Your task to perform on an android device: read, delete, or share a saved page in the chrome app Image 0: 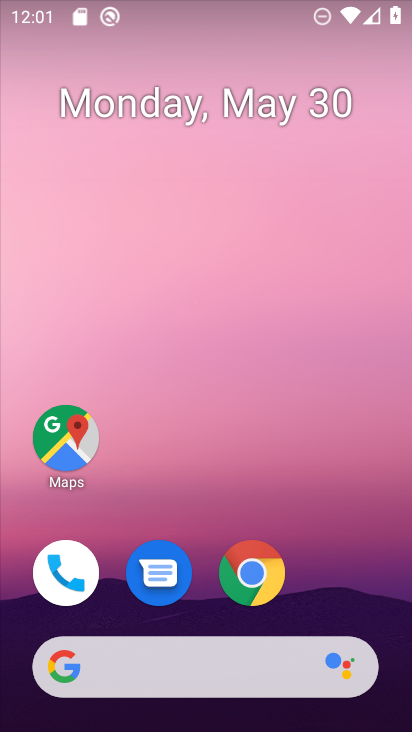
Step 0: drag from (372, 609) to (332, 114)
Your task to perform on an android device: read, delete, or share a saved page in the chrome app Image 1: 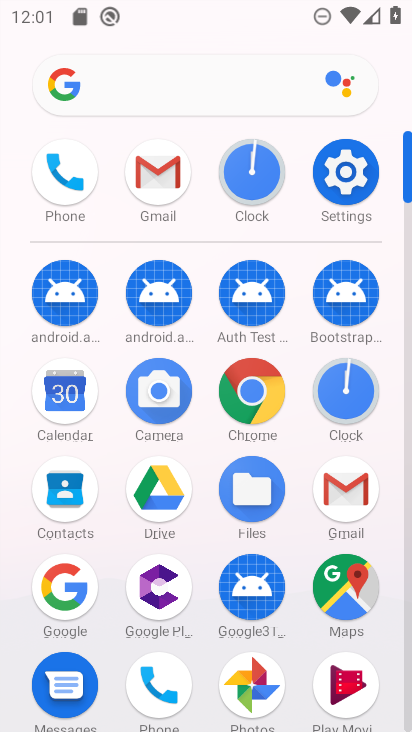
Step 1: click (233, 393)
Your task to perform on an android device: read, delete, or share a saved page in the chrome app Image 2: 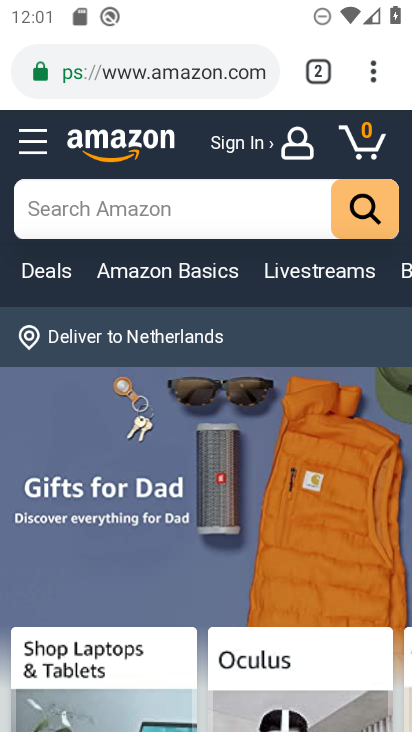
Step 2: task complete